Your task to perform on an android device: Open Maps and search for coffee Image 0: 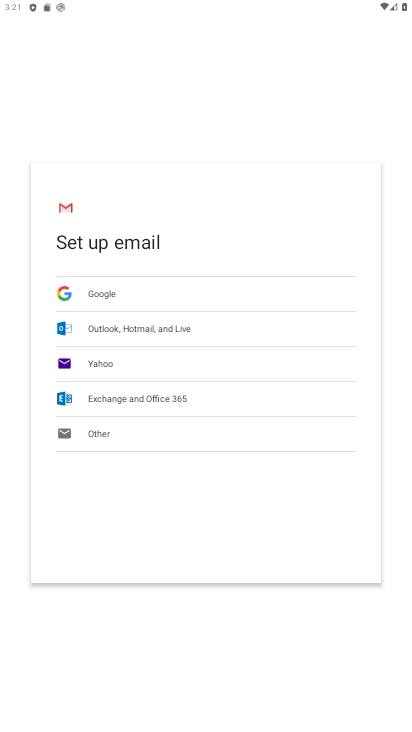
Step 0: press home button
Your task to perform on an android device: Open Maps and search for coffee Image 1: 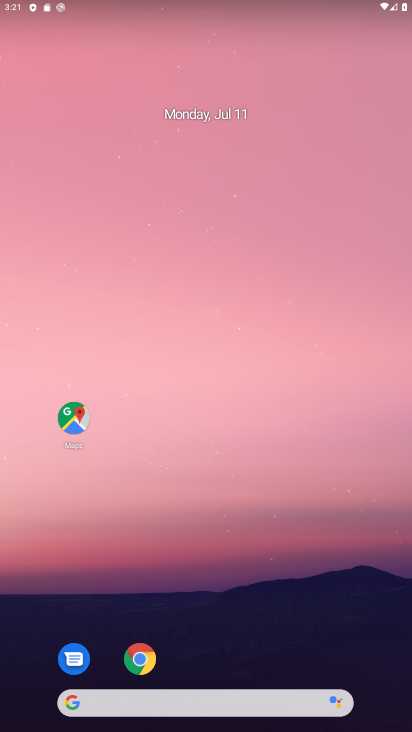
Step 1: click (325, 642)
Your task to perform on an android device: Open Maps and search for coffee Image 2: 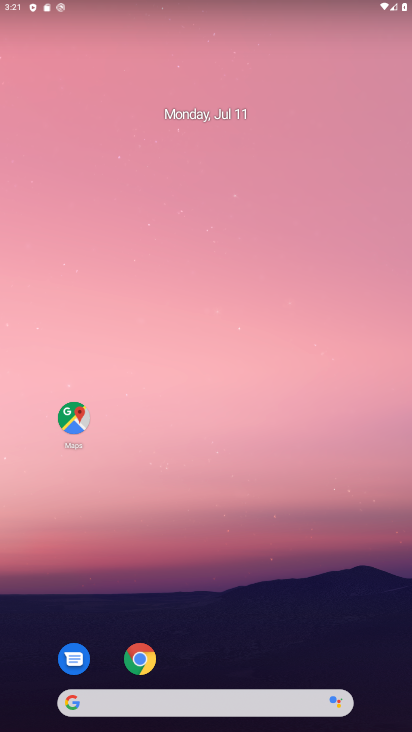
Step 2: click (79, 426)
Your task to perform on an android device: Open Maps and search for coffee Image 3: 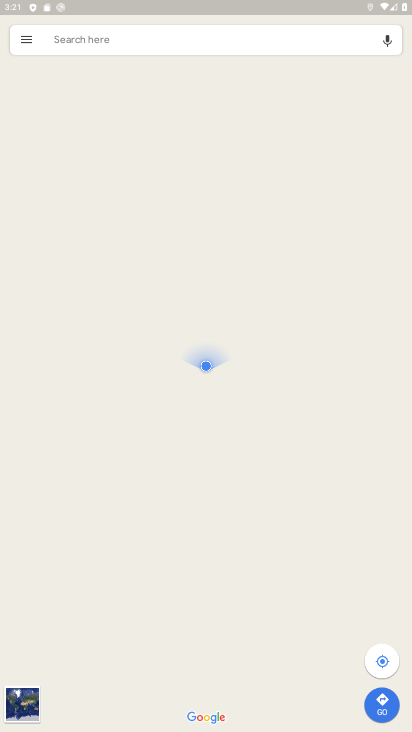
Step 3: click (174, 44)
Your task to perform on an android device: Open Maps and search for coffee Image 4: 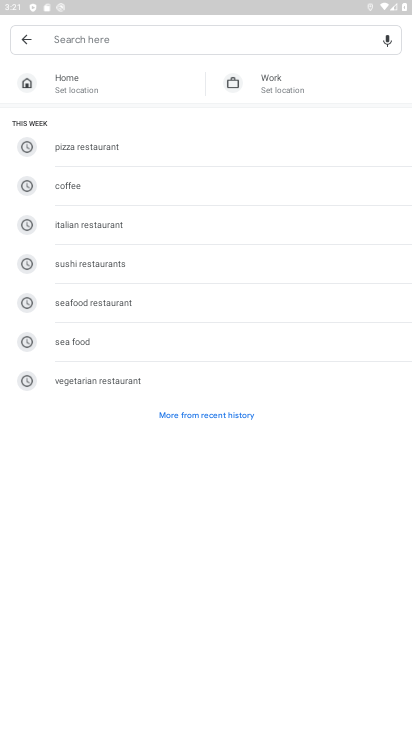
Step 4: click (140, 183)
Your task to perform on an android device: Open Maps and search for coffee Image 5: 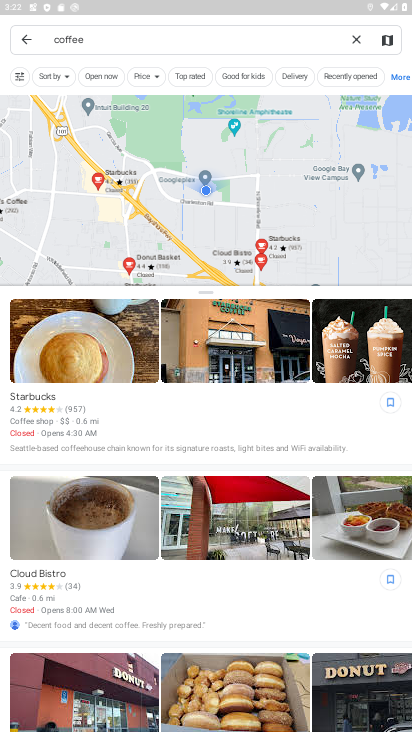
Step 5: task complete